Your task to perform on an android device: manage bookmarks in the chrome app Image 0: 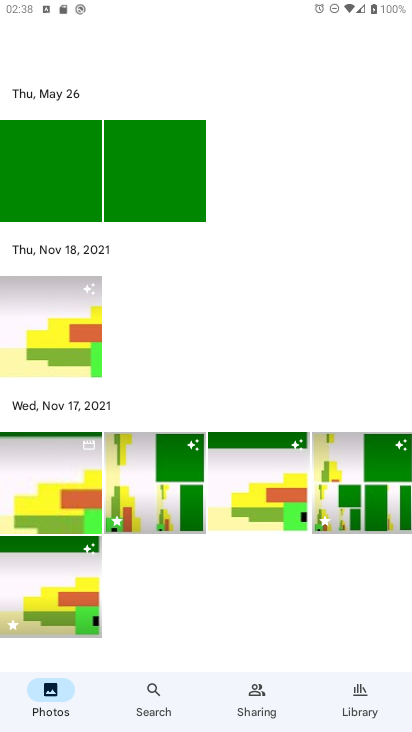
Step 0: drag from (213, 705) to (194, 212)
Your task to perform on an android device: manage bookmarks in the chrome app Image 1: 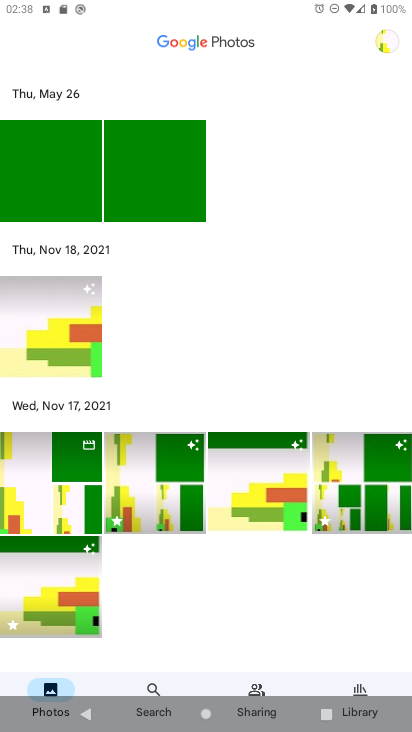
Step 1: press home button
Your task to perform on an android device: manage bookmarks in the chrome app Image 2: 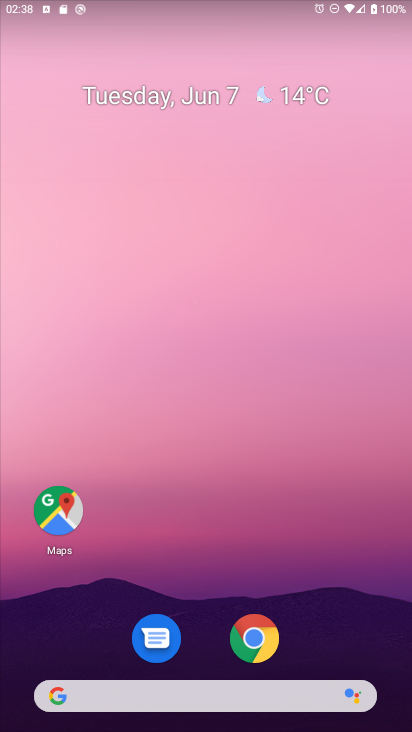
Step 2: drag from (219, 682) to (271, 167)
Your task to perform on an android device: manage bookmarks in the chrome app Image 3: 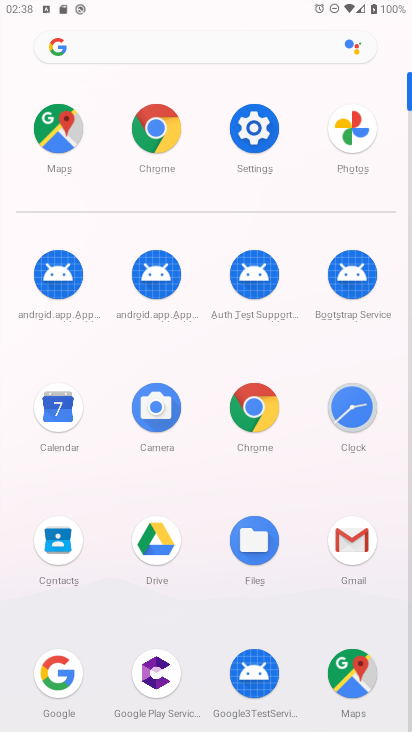
Step 3: click (147, 131)
Your task to perform on an android device: manage bookmarks in the chrome app Image 4: 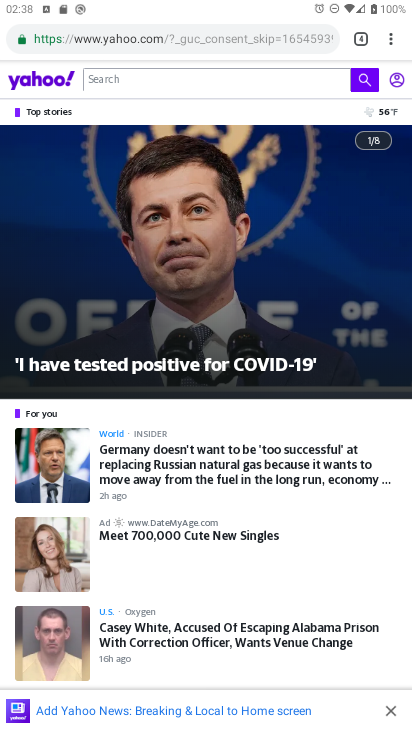
Step 4: click (390, 47)
Your task to perform on an android device: manage bookmarks in the chrome app Image 5: 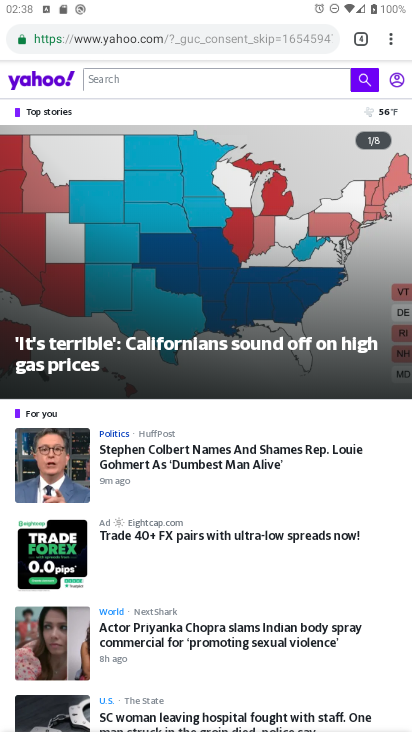
Step 5: click (384, 41)
Your task to perform on an android device: manage bookmarks in the chrome app Image 6: 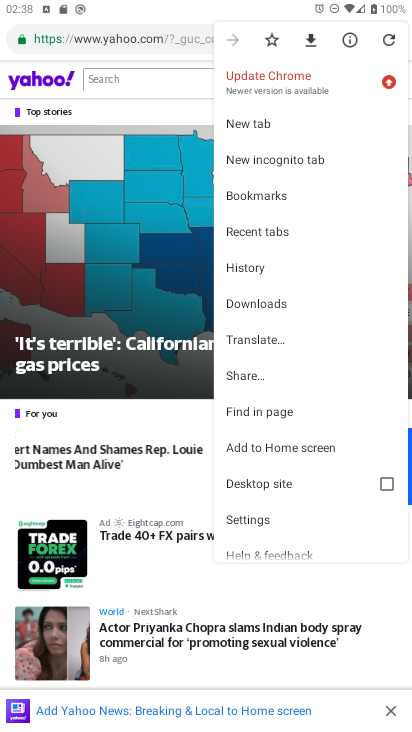
Step 6: click (265, 188)
Your task to perform on an android device: manage bookmarks in the chrome app Image 7: 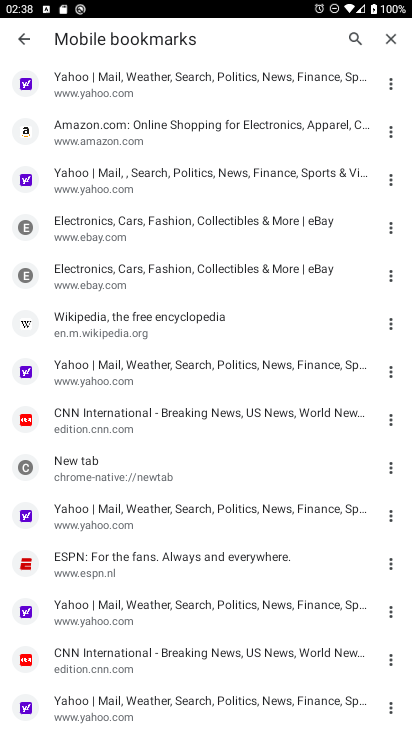
Step 7: task complete